Your task to perform on an android device: What is the recent news? Image 0: 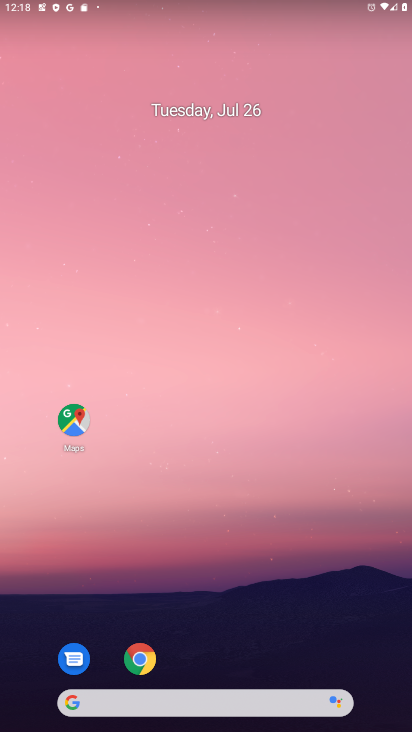
Step 0: drag from (10, 291) to (382, 297)
Your task to perform on an android device: What is the recent news? Image 1: 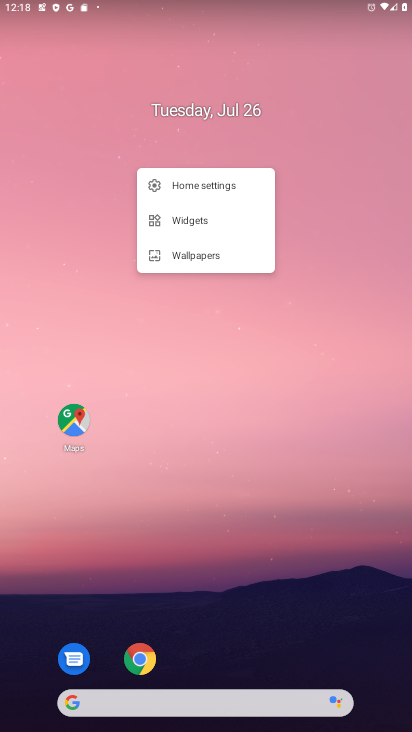
Step 1: click (382, 297)
Your task to perform on an android device: What is the recent news? Image 2: 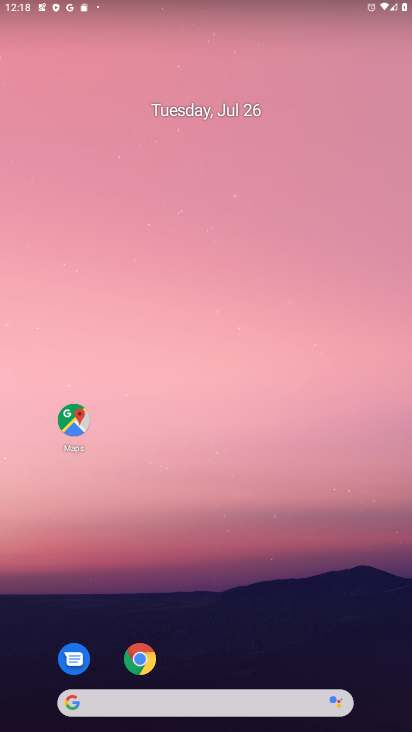
Step 2: drag from (43, 286) to (370, 279)
Your task to perform on an android device: What is the recent news? Image 3: 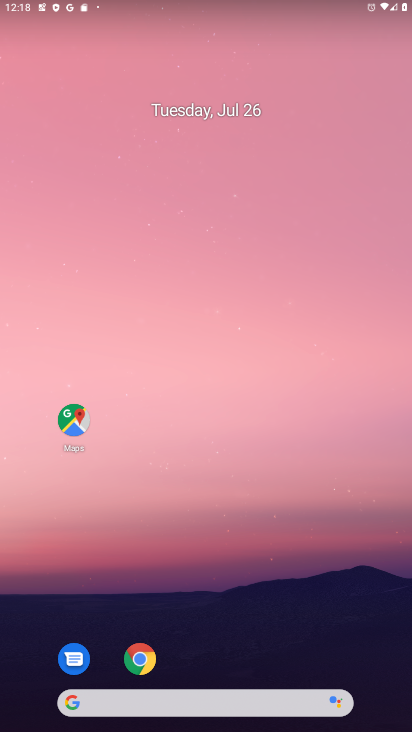
Step 3: drag from (5, 311) to (384, 343)
Your task to perform on an android device: What is the recent news? Image 4: 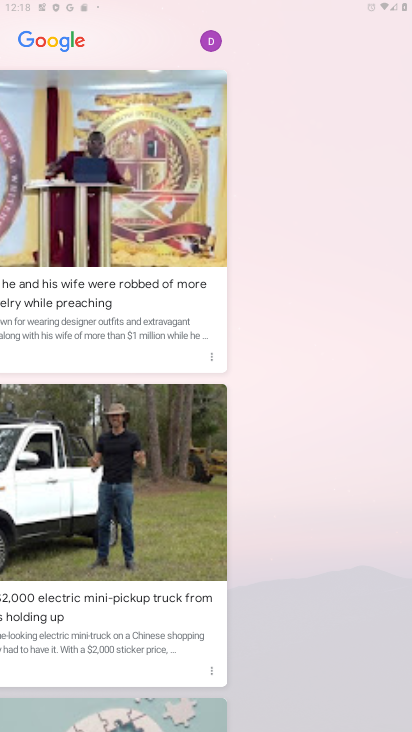
Step 4: click (36, 286)
Your task to perform on an android device: What is the recent news? Image 5: 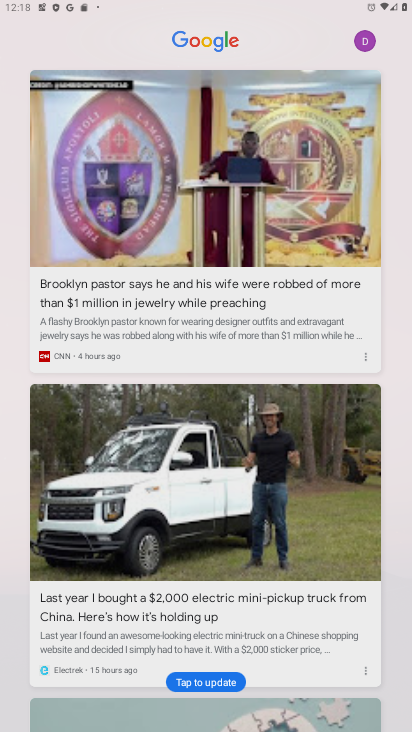
Step 5: task complete